Your task to perform on an android device: star an email in the gmail app Image 0: 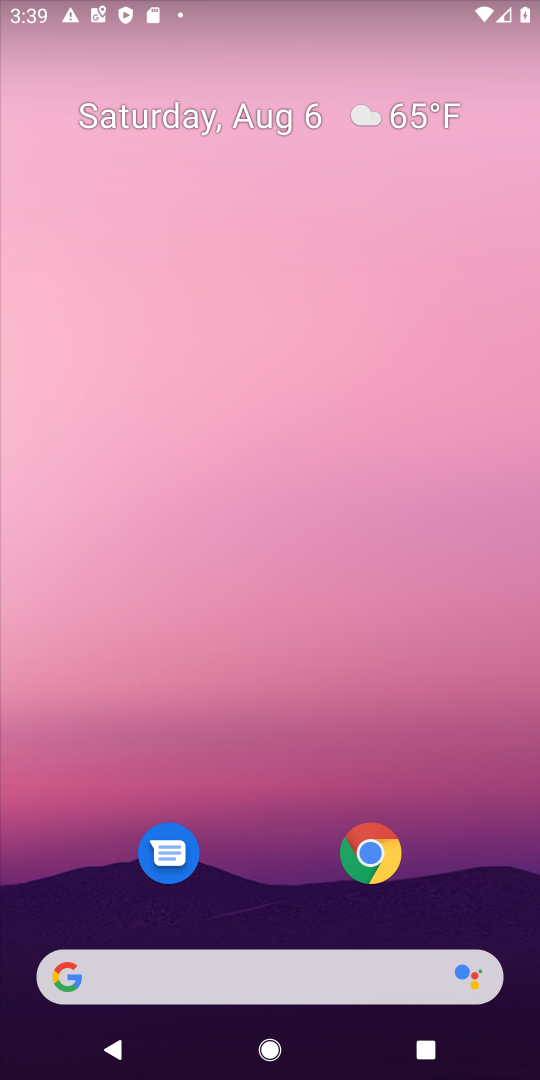
Step 0: drag from (205, 876) to (308, 119)
Your task to perform on an android device: star an email in the gmail app Image 1: 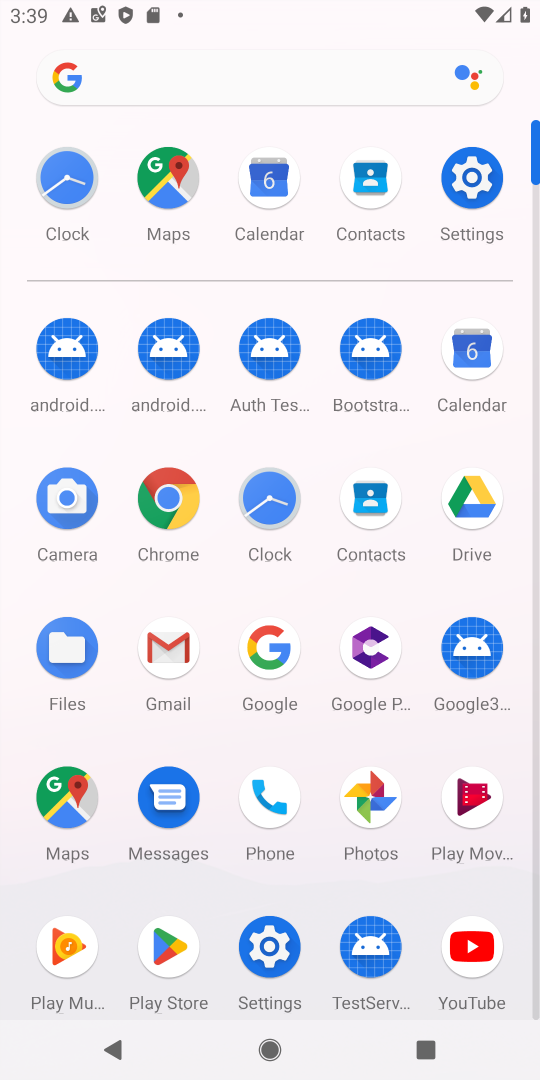
Step 1: click (175, 641)
Your task to perform on an android device: star an email in the gmail app Image 2: 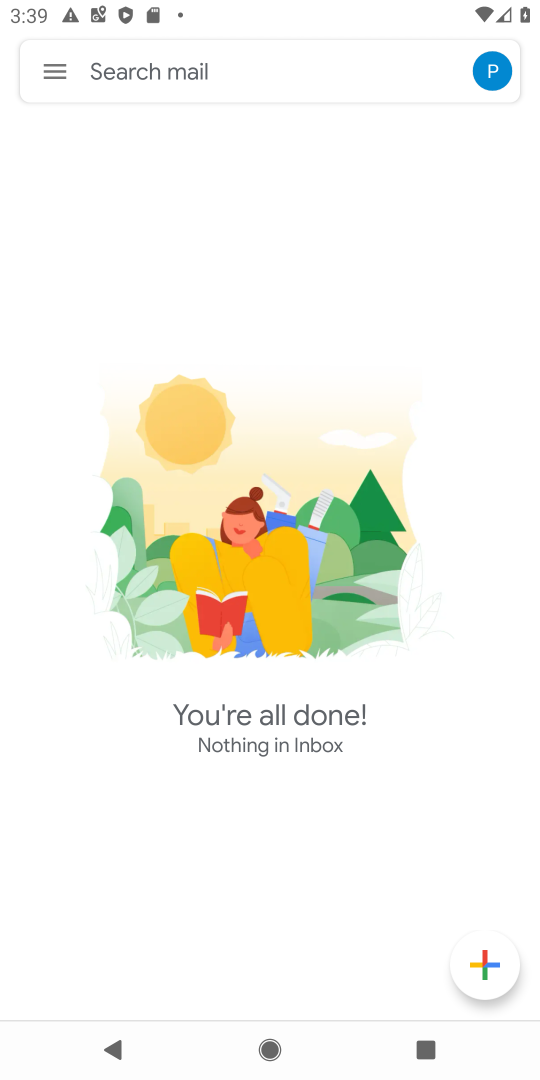
Step 2: click (60, 73)
Your task to perform on an android device: star an email in the gmail app Image 3: 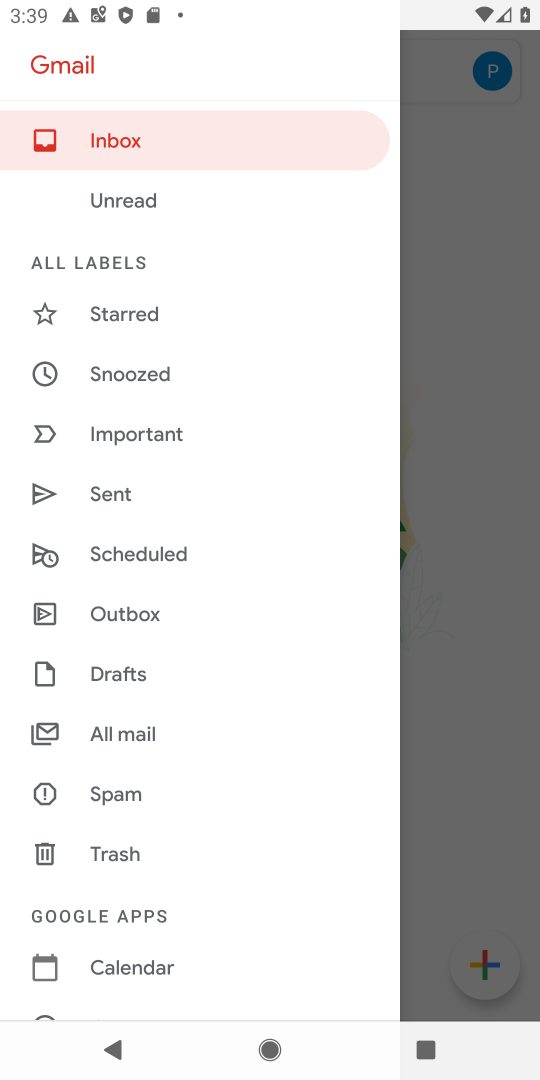
Step 3: click (156, 724)
Your task to perform on an android device: star an email in the gmail app Image 4: 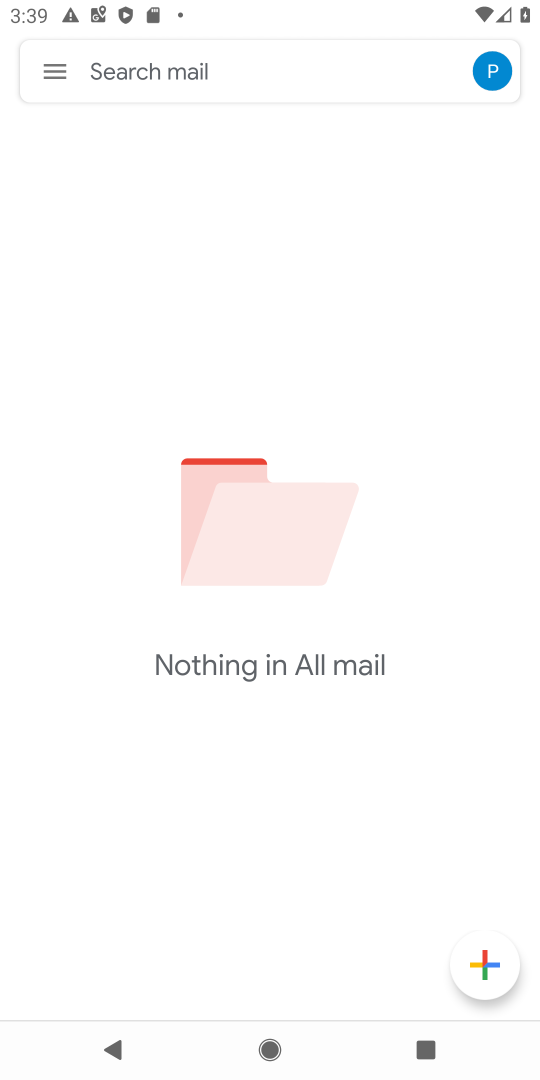
Step 4: task complete